Your task to perform on an android device: What's the weather going to be tomorrow? Image 0: 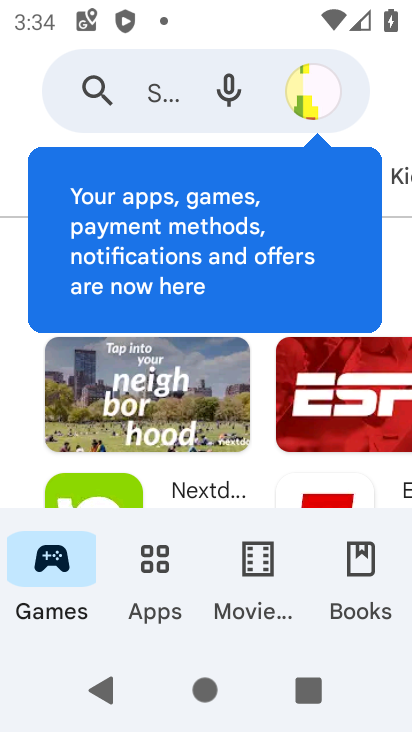
Step 0: task complete